Your task to perform on an android device: check battery use Image 0: 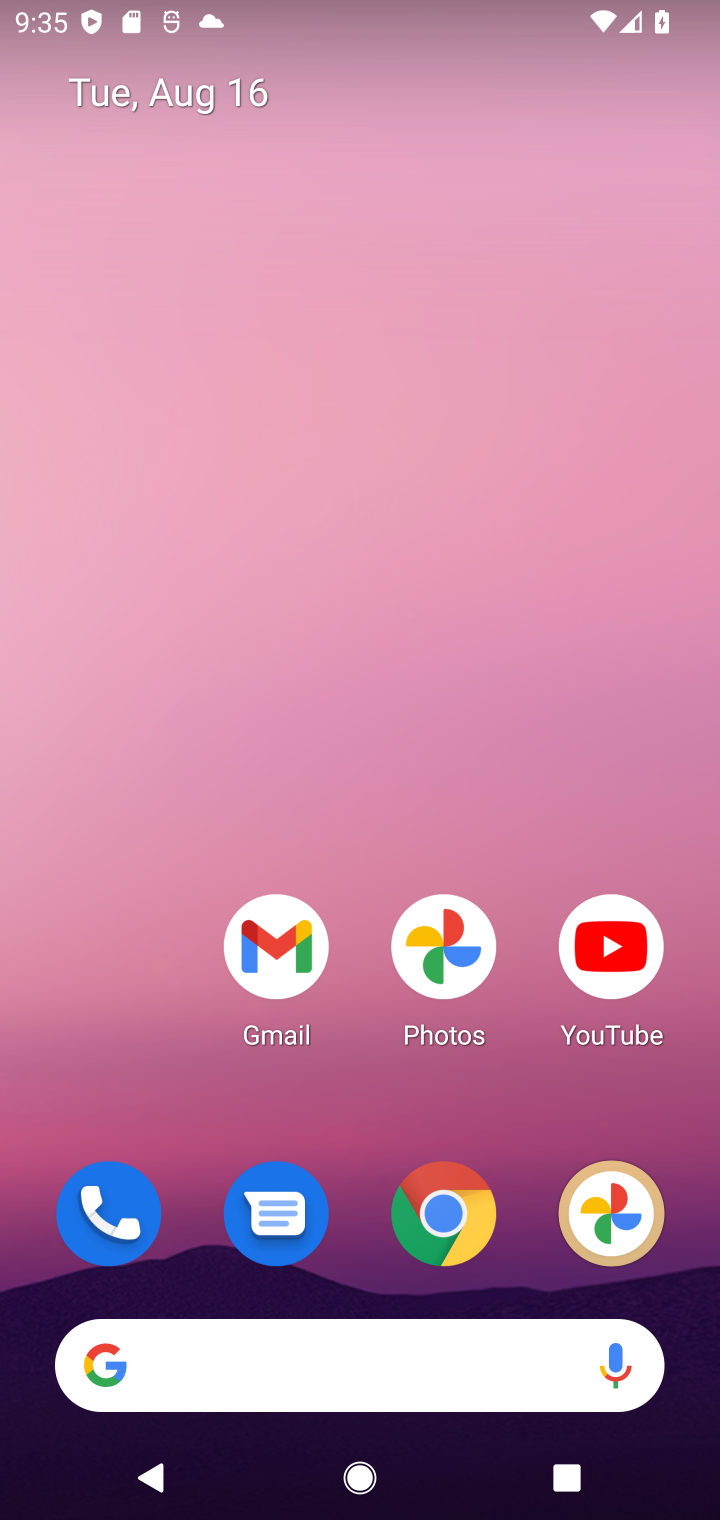
Step 0: drag from (289, 1285) to (354, 380)
Your task to perform on an android device: check battery use Image 1: 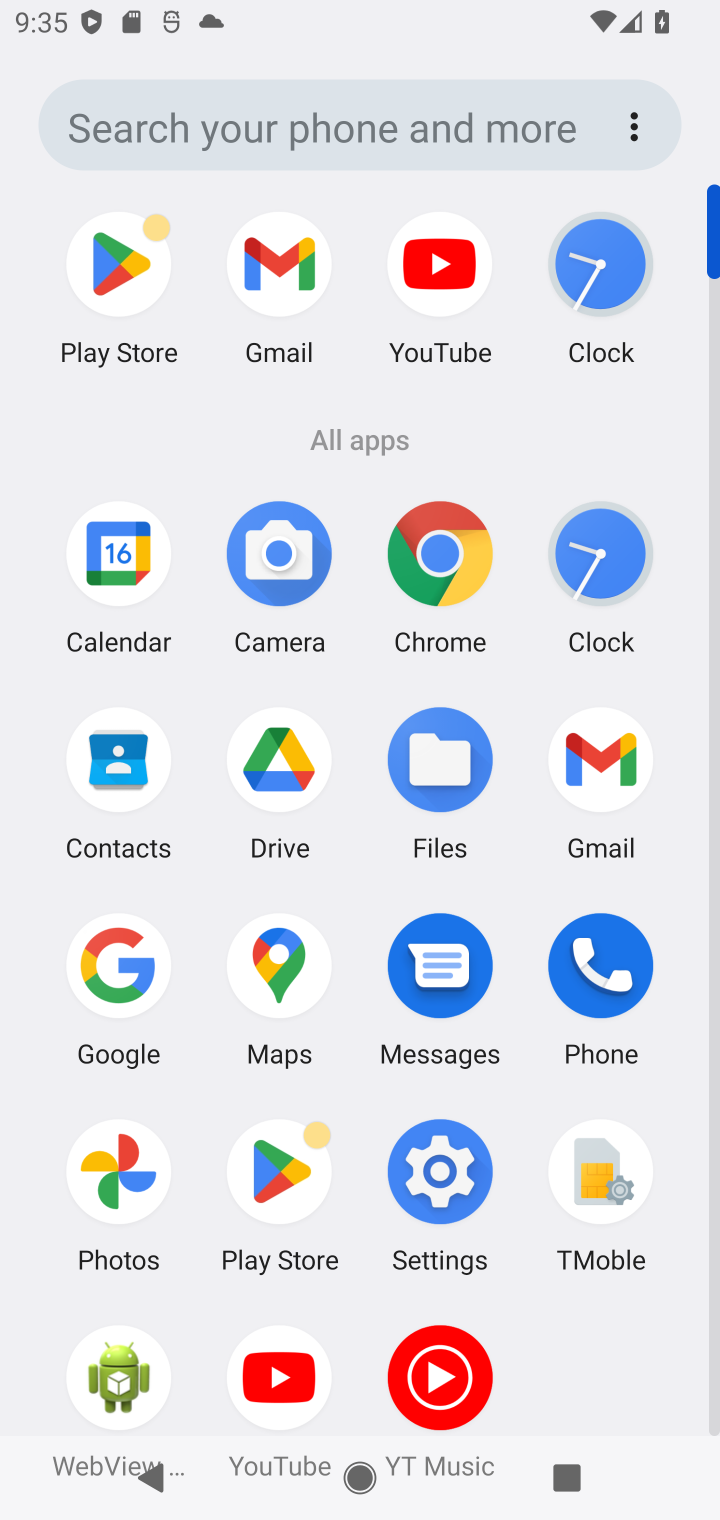
Step 1: click (429, 1145)
Your task to perform on an android device: check battery use Image 2: 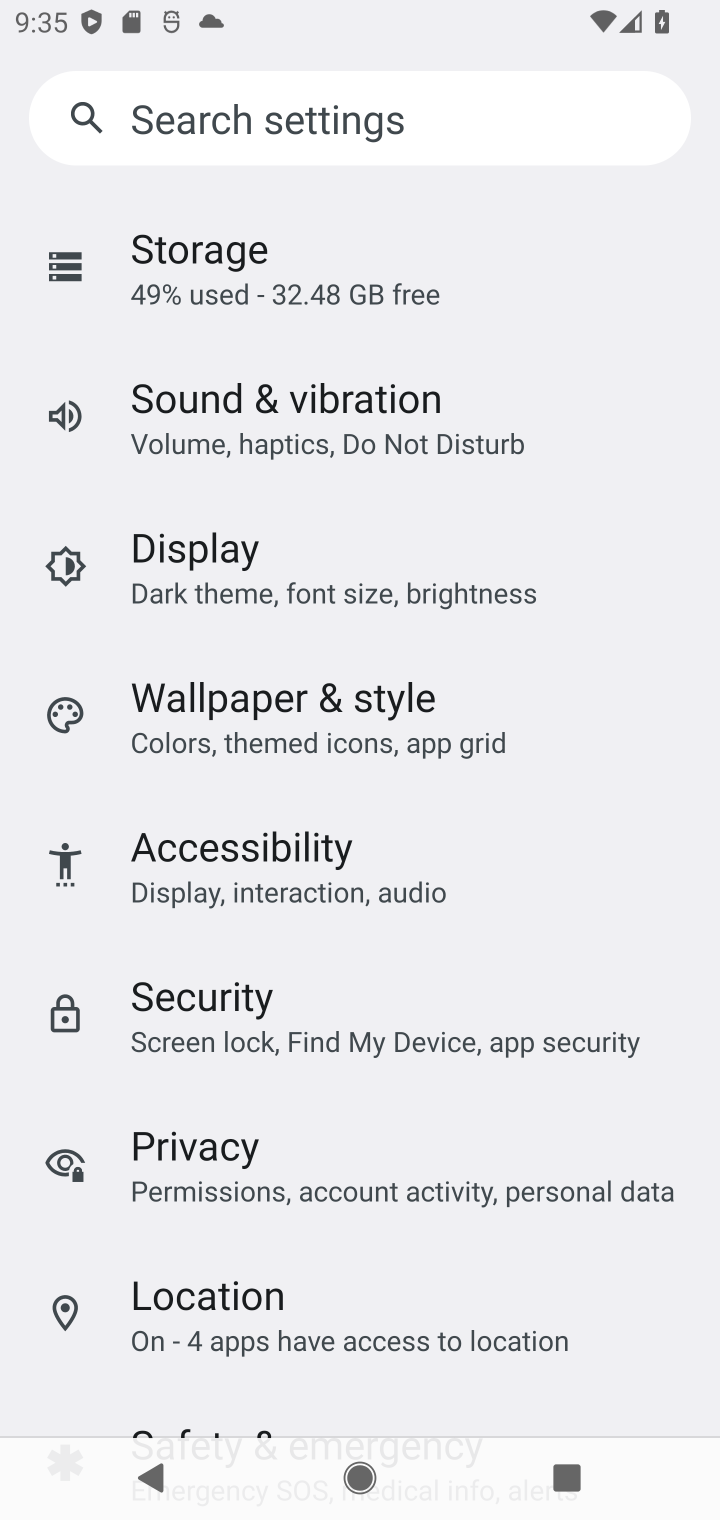
Step 2: drag from (245, 1242) to (404, 462)
Your task to perform on an android device: check battery use Image 3: 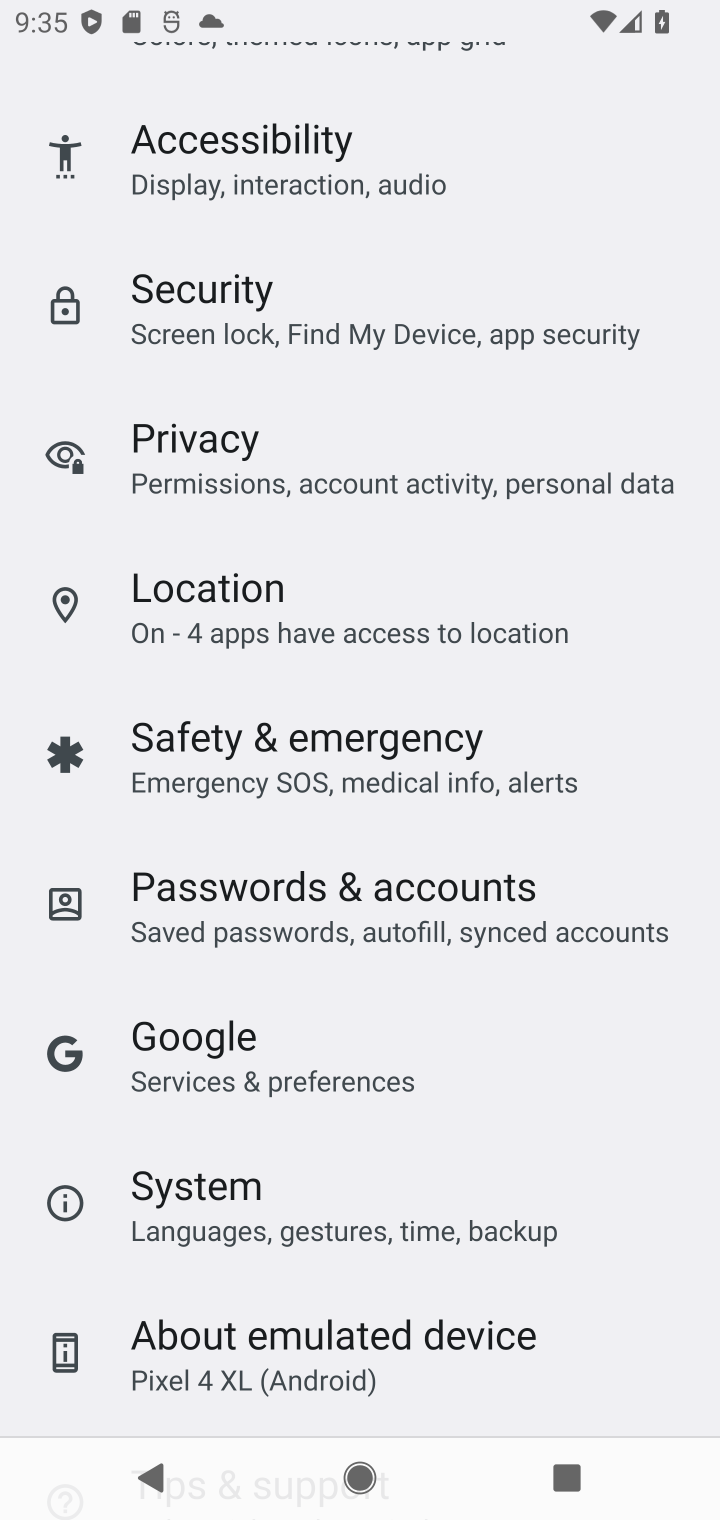
Step 3: drag from (235, 273) to (231, 1337)
Your task to perform on an android device: check battery use Image 4: 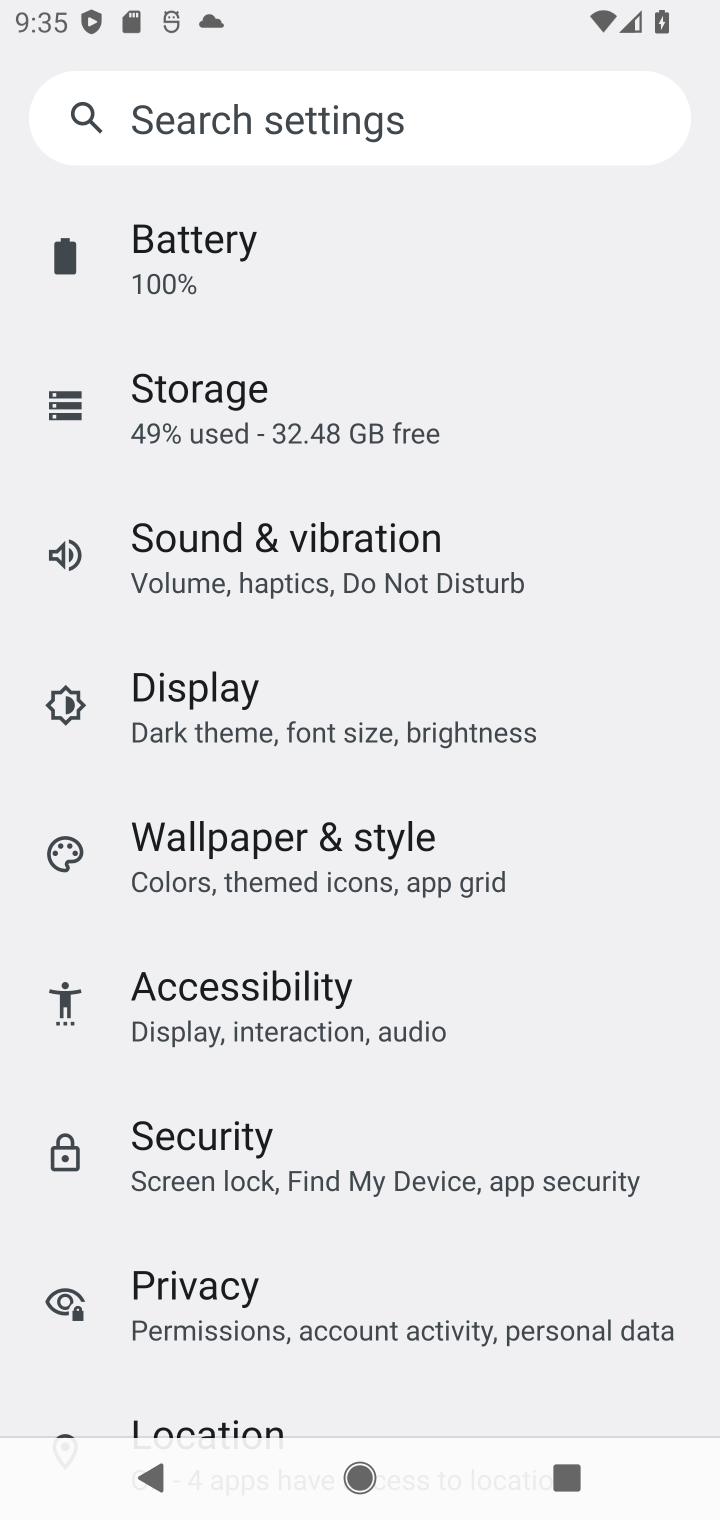
Step 4: click (184, 235)
Your task to perform on an android device: check battery use Image 5: 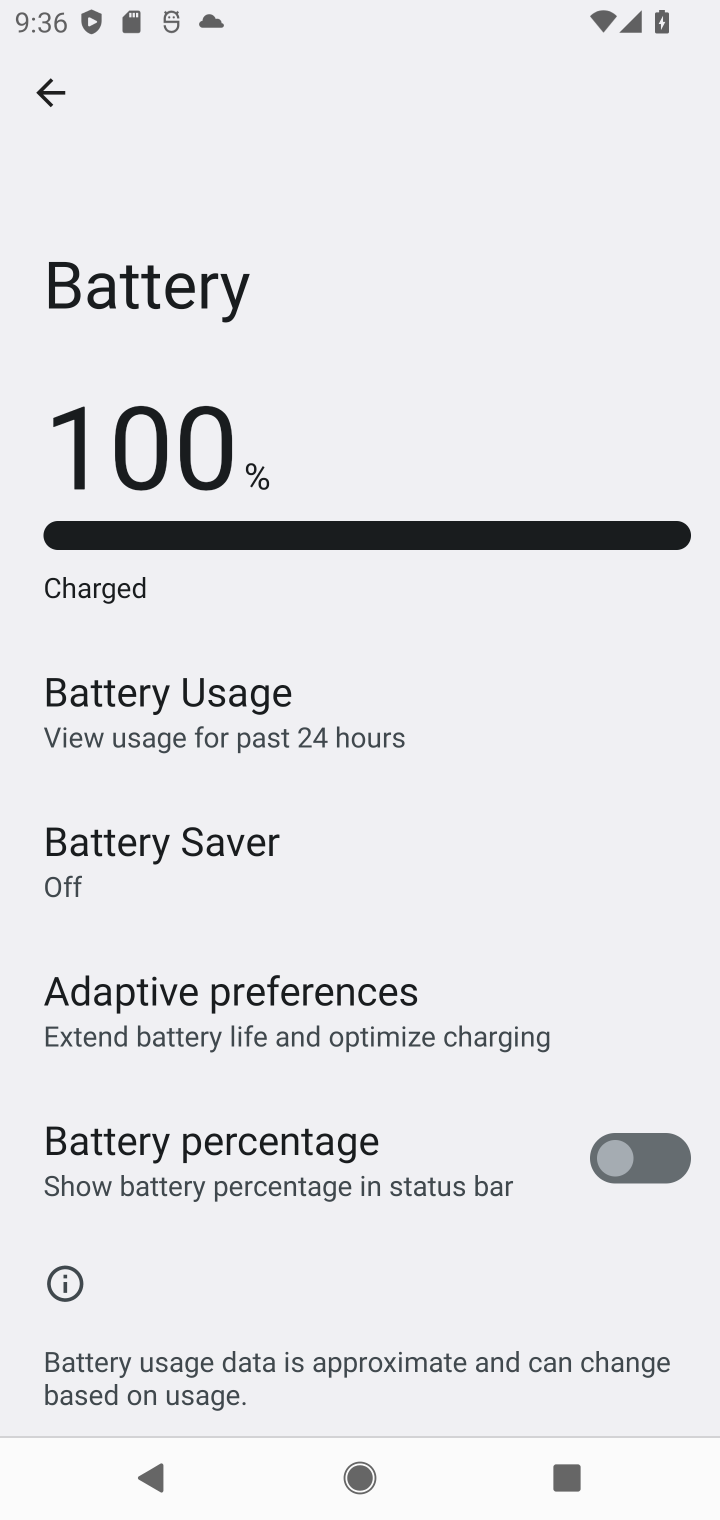
Step 5: task complete